Your task to perform on an android device: What is the news today? Image 0: 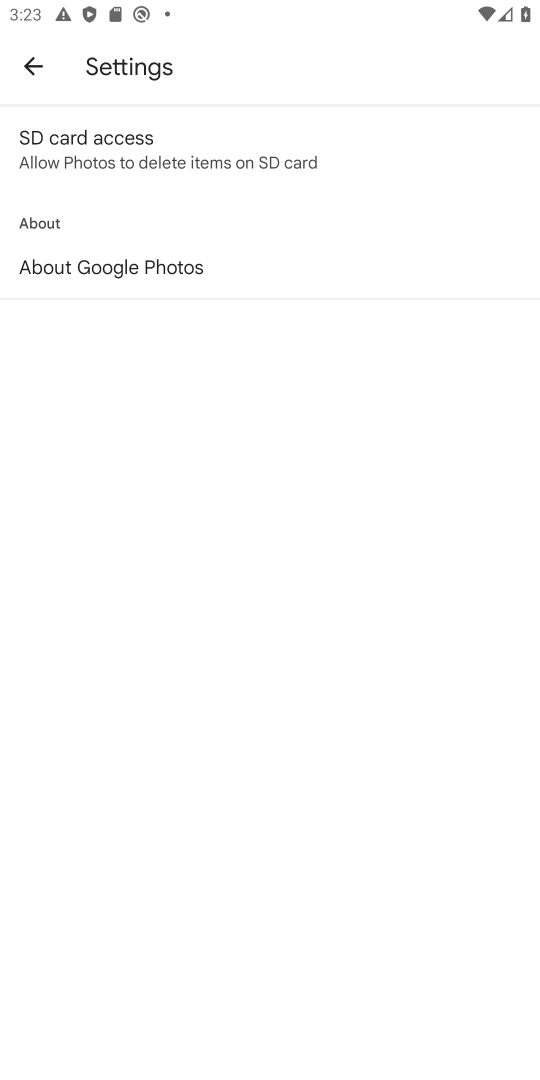
Step 0: press back button
Your task to perform on an android device: What is the news today? Image 1: 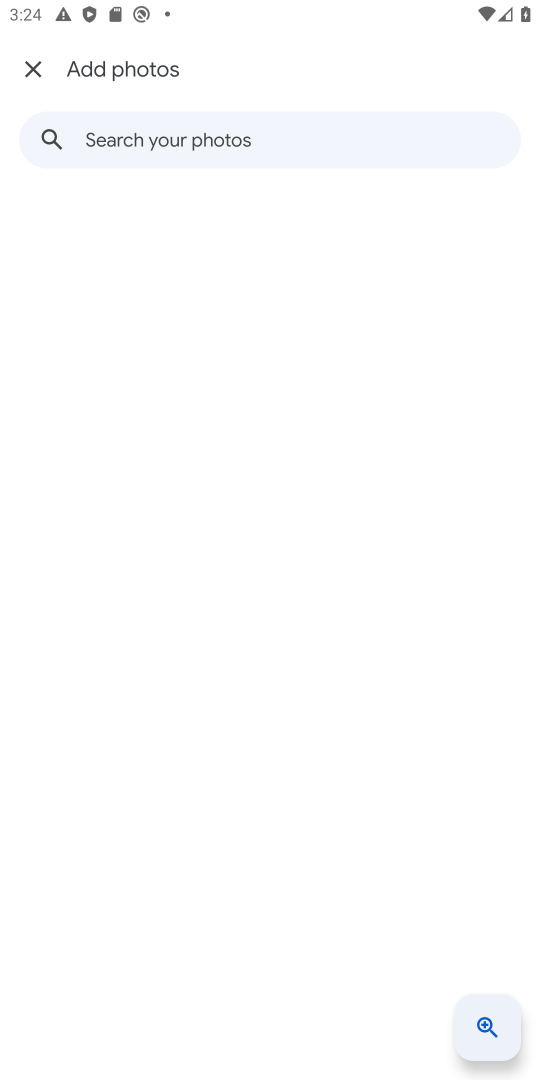
Step 1: press home button
Your task to perform on an android device: What is the news today? Image 2: 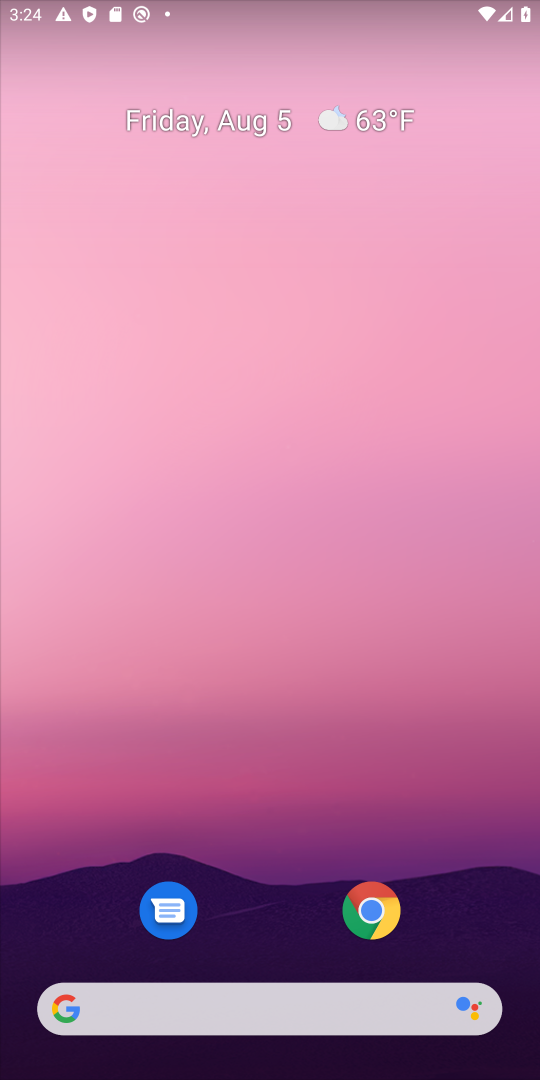
Step 2: click (364, 924)
Your task to perform on an android device: What is the news today? Image 3: 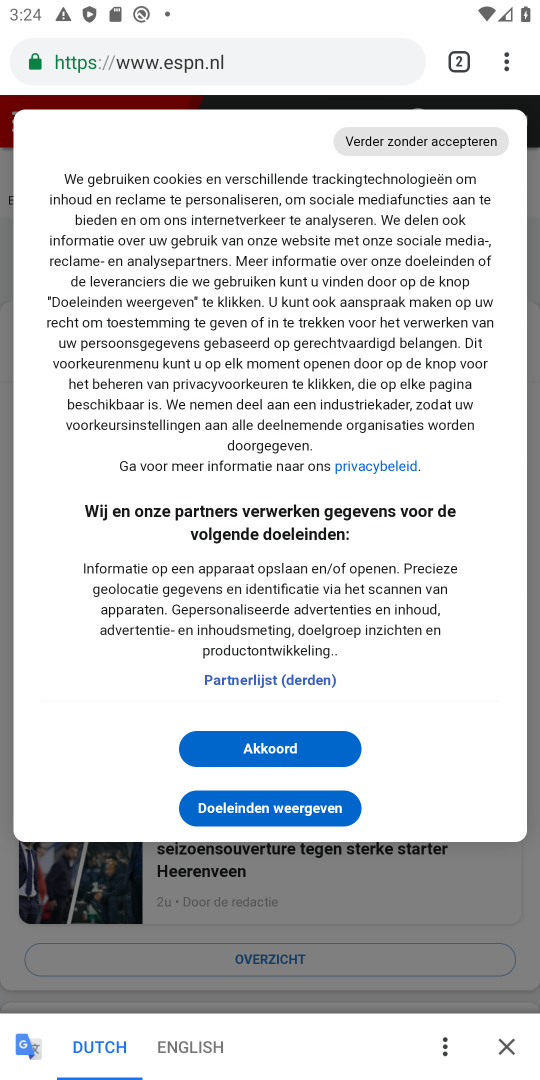
Step 3: click (507, 63)
Your task to perform on an android device: What is the news today? Image 4: 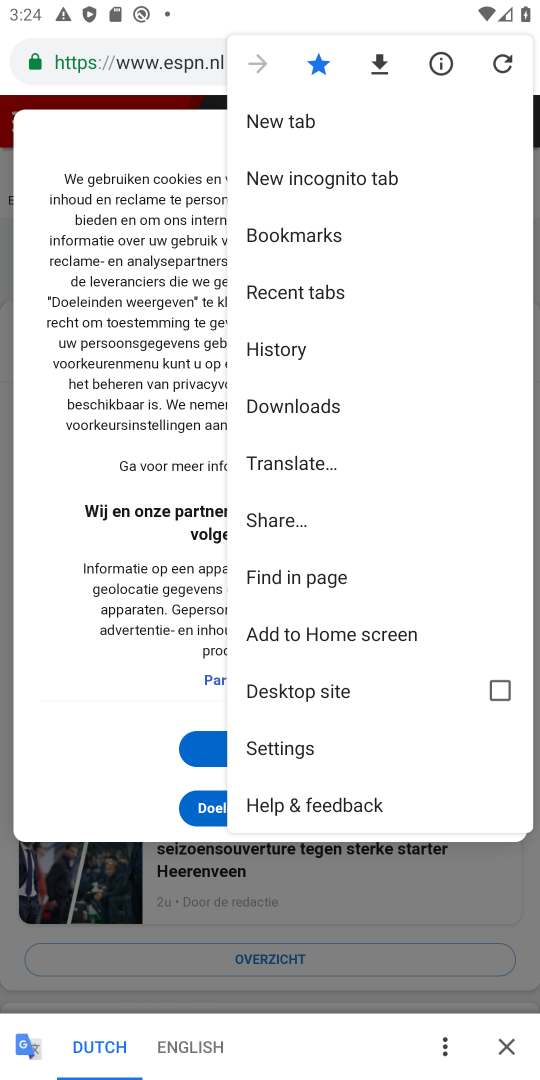
Step 4: click (321, 119)
Your task to perform on an android device: What is the news today? Image 5: 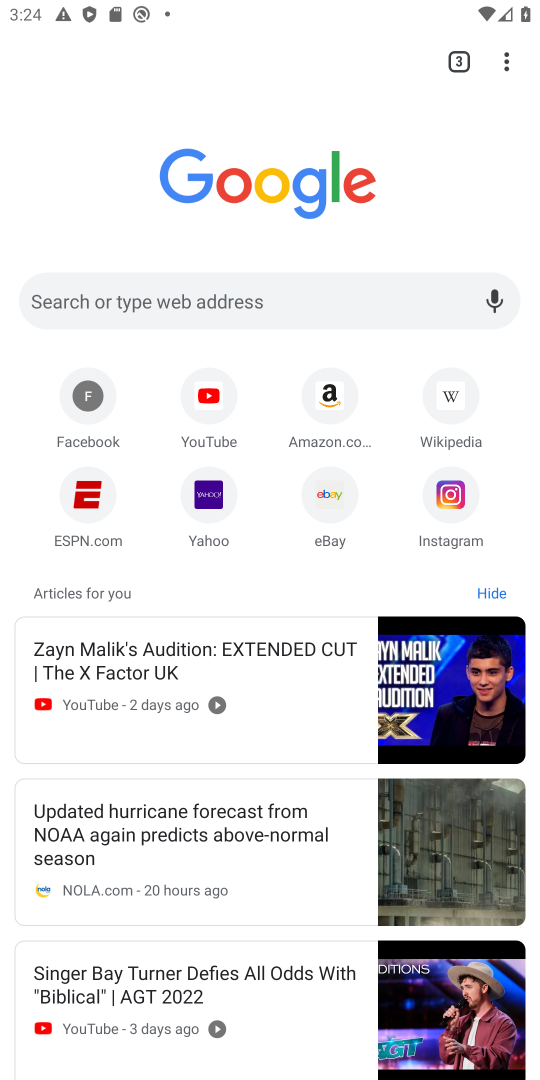
Step 5: click (334, 303)
Your task to perform on an android device: What is the news today? Image 6: 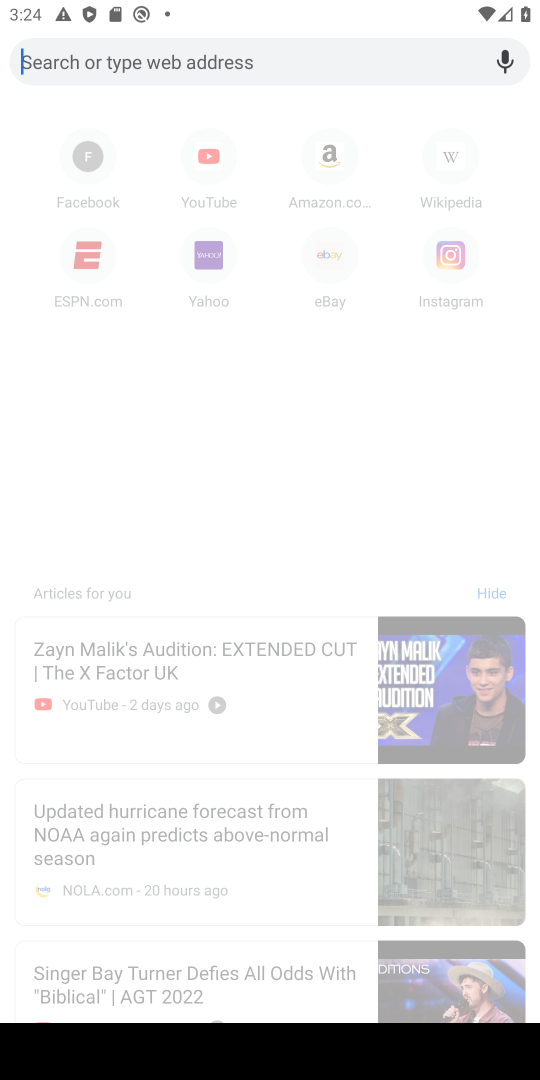
Step 6: type "What is the news today?"
Your task to perform on an android device: What is the news today? Image 7: 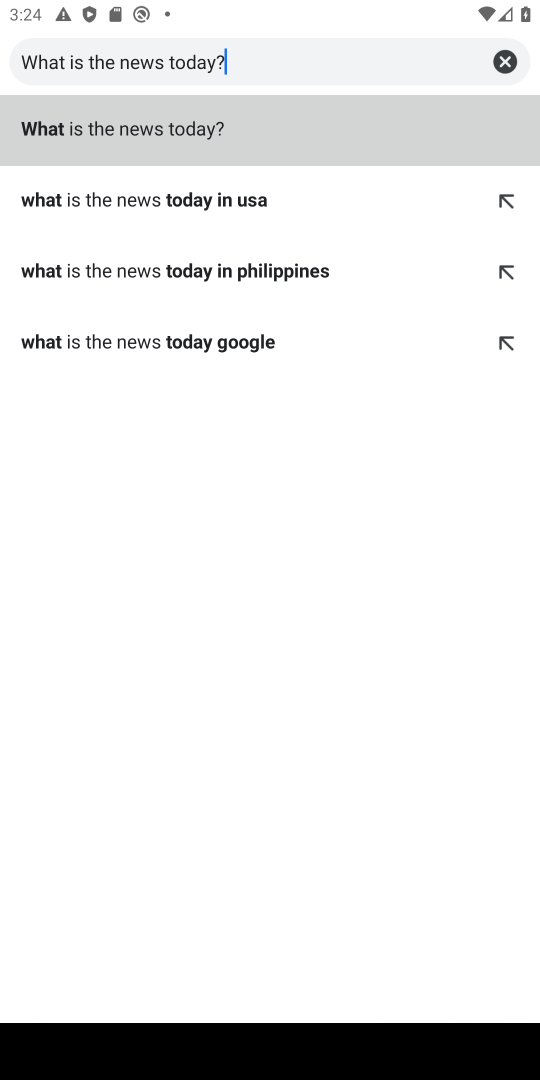
Step 7: click (95, 107)
Your task to perform on an android device: What is the news today? Image 8: 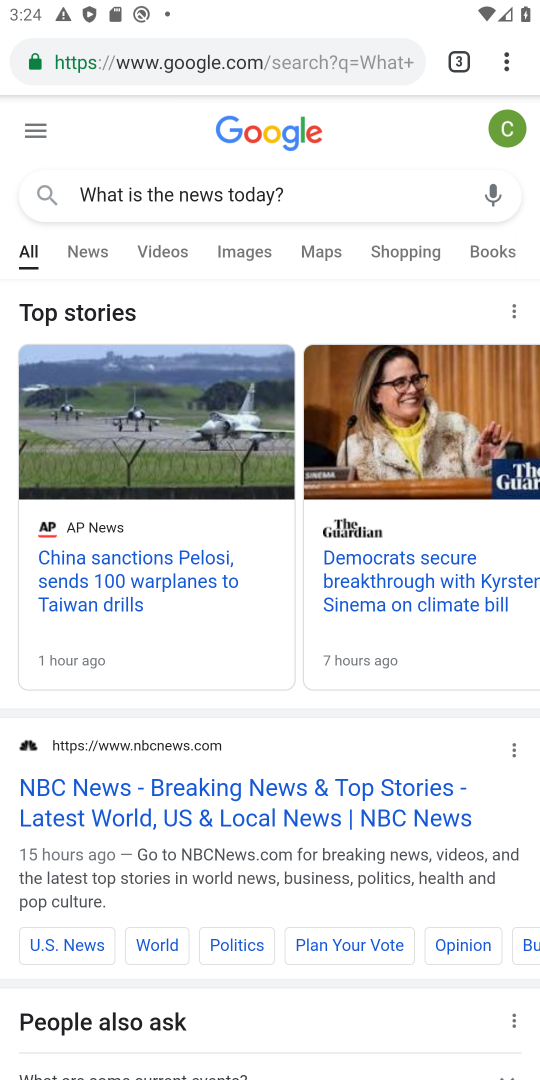
Step 8: task complete